Your task to perform on an android device: turn smart compose on in the gmail app Image 0: 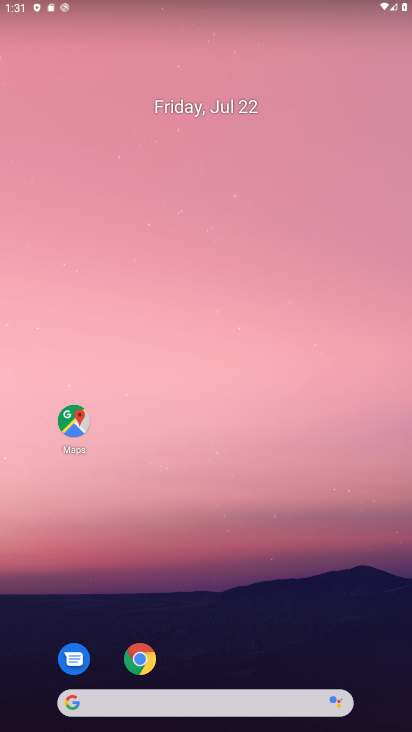
Step 0: task complete